Your task to perform on an android device: stop showing notifications on the lock screen Image 0: 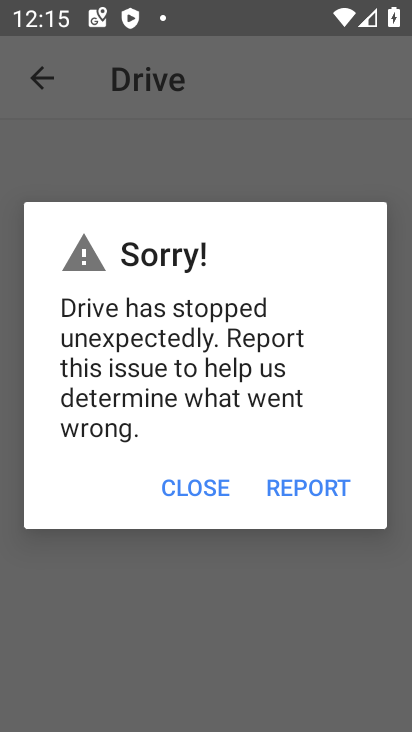
Step 0: click (187, 485)
Your task to perform on an android device: stop showing notifications on the lock screen Image 1: 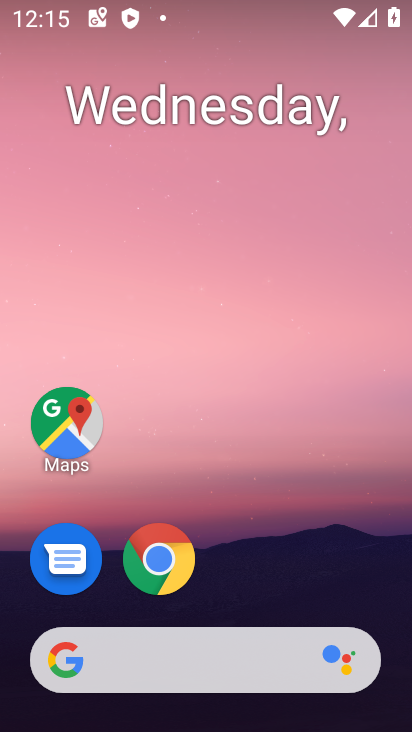
Step 1: drag from (239, 512) to (294, 30)
Your task to perform on an android device: stop showing notifications on the lock screen Image 2: 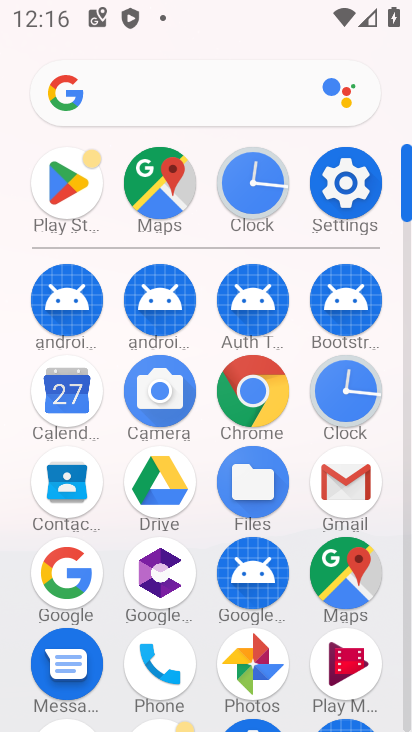
Step 2: click (341, 185)
Your task to perform on an android device: stop showing notifications on the lock screen Image 3: 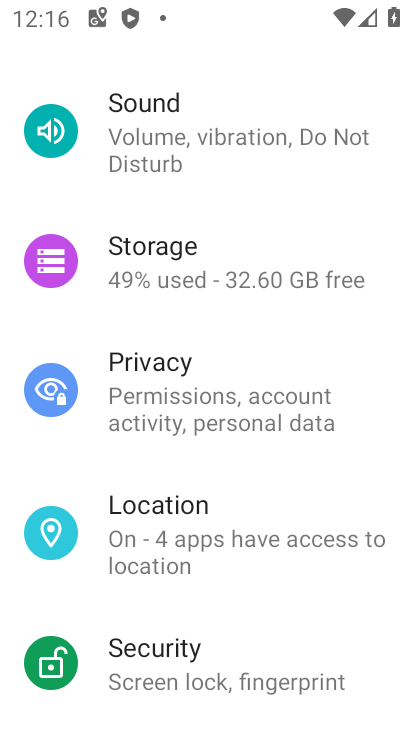
Step 3: drag from (285, 119) to (191, 720)
Your task to perform on an android device: stop showing notifications on the lock screen Image 4: 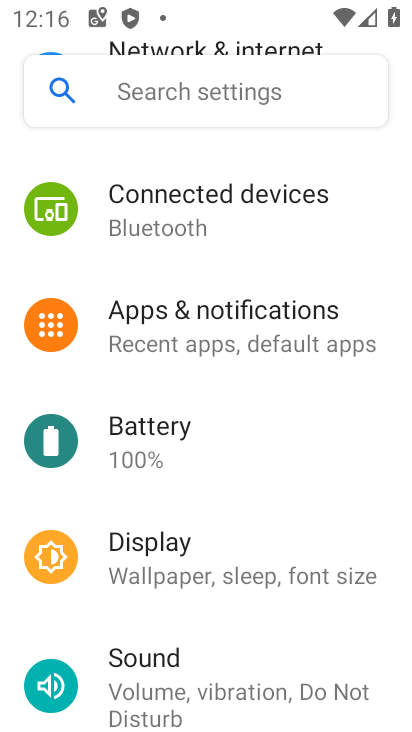
Step 4: click (226, 329)
Your task to perform on an android device: stop showing notifications on the lock screen Image 5: 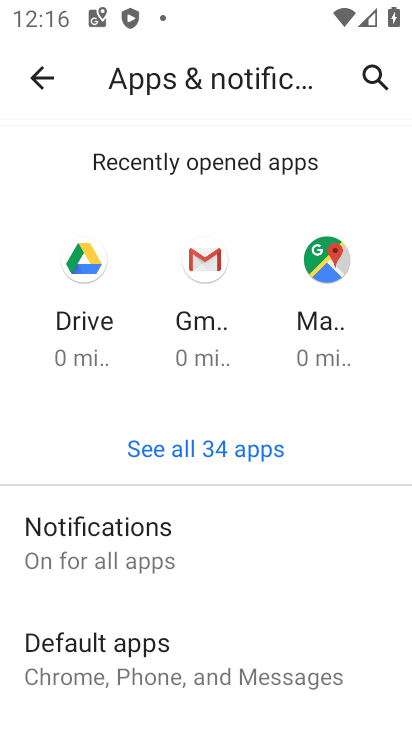
Step 5: click (103, 551)
Your task to perform on an android device: stop showing notifications on the lock screen Image 6: 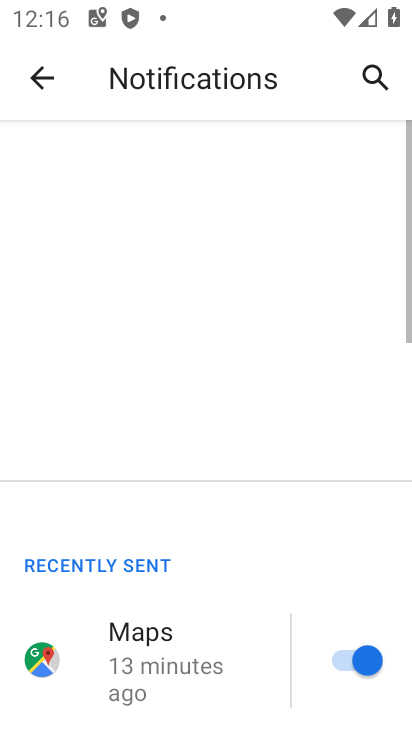
Step 6: drag from (125, 633) to (188, 40)
Your task to perform on an android device: stop showing notifications on the lock screen Image 7: 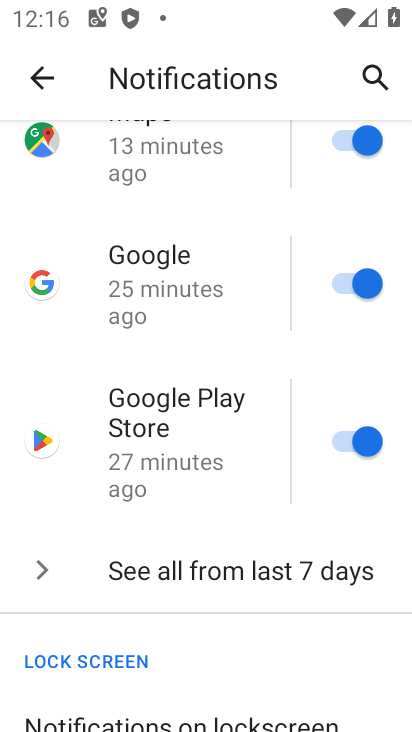
Step 7: drag from (154, 646) to (215, 160)
Your task to perform on an android device: stop showing notifications on the lock screen Image 8: 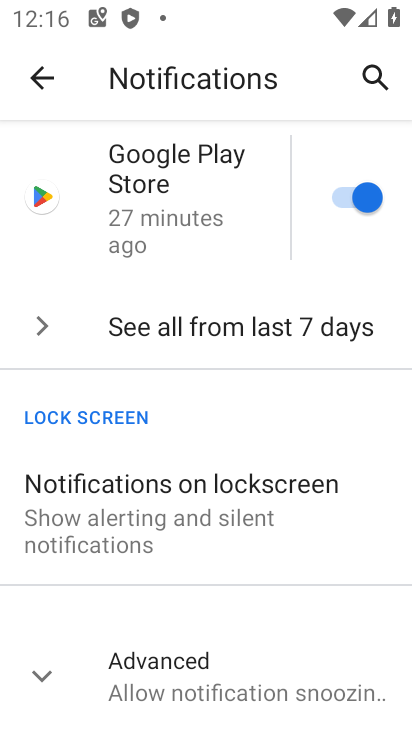
Step 8: click (93, 494)
Your task to perform on an android device: stop showing notifications on the lock screen Image 9: 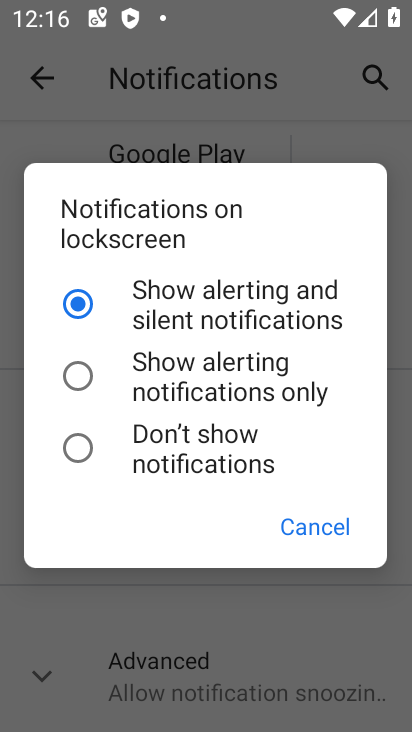
Step 9: click (147, 456)
Your task to perform on an android device: stop showing notifications on the lock screen Image 10: 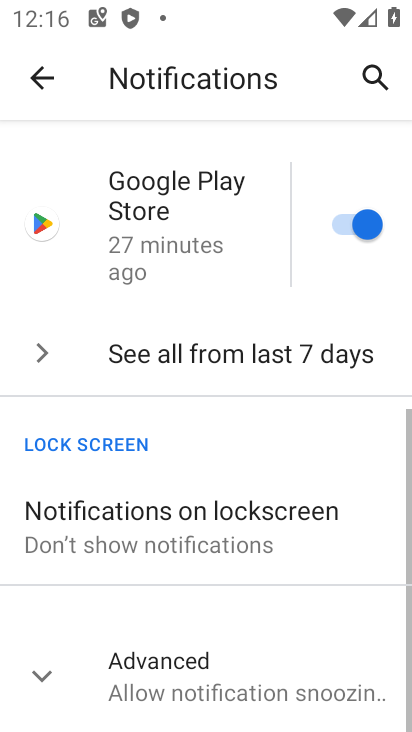
Step 10: task complete